Your task to perform on an android device: Set the phone to "Do not disturb". Image 0: 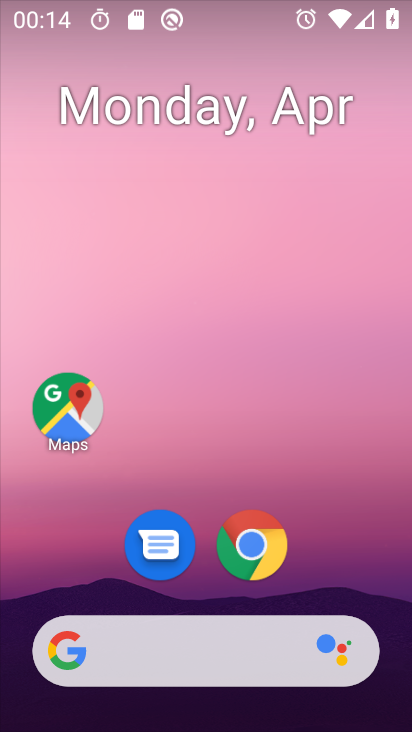
Step 0: click (345, 221)
Your task to perform on an android device: Set the phone to "Do not disturb". Image 1: 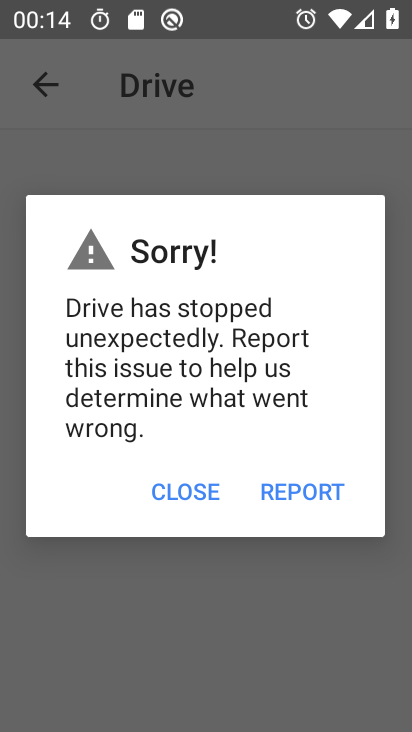
Step 1: press home button
Your task to perform on an android device: Set the phone to "Do not disturb". Image 2: 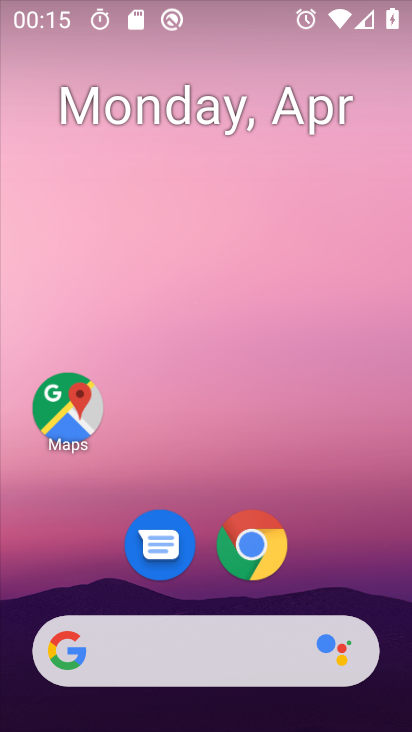
Step 2: drag from (303, 522) to (310, 183)
Your task to perform on an android device: Set the phone to "Do not disturb". Image 3: 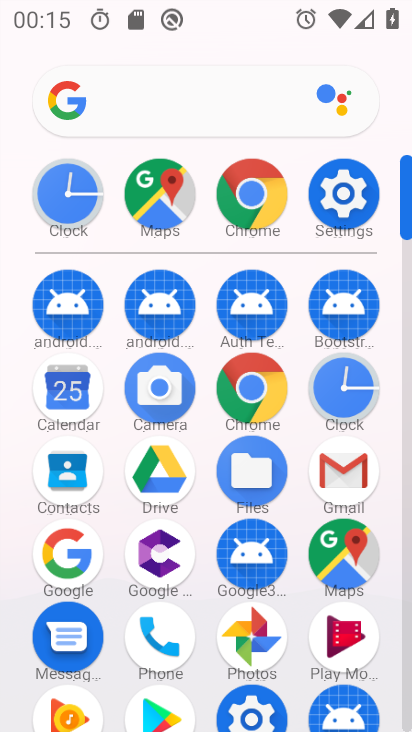
Step 3: drag from (175, 12) to (146, 698)
Your task to perform on an android device: Set the phone to "Do not disturb". Image 4: 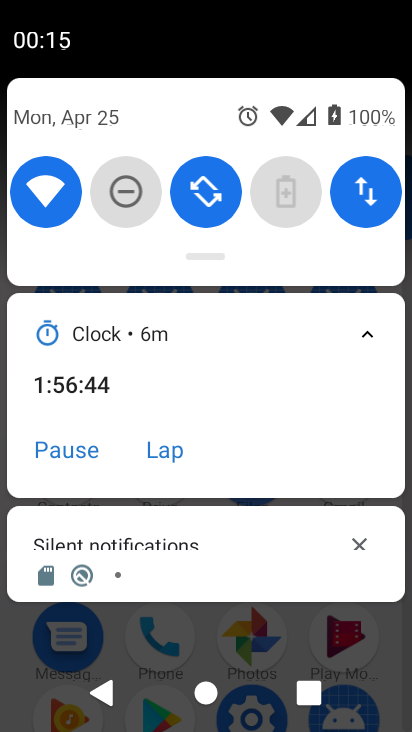
Step 4: click (140, 187)
Your task to perform on an android device: Set the phone to "Do not disturb". Image 5: 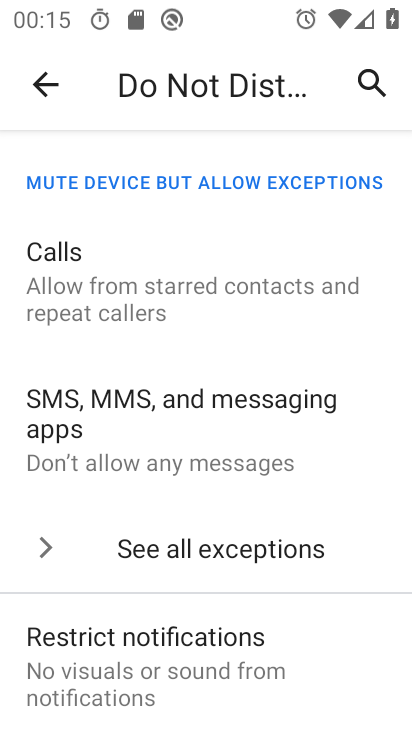
Step 5: drag from (232, 587) to (271, 78)
Your task to perform on an android device: Set the phone to "Do not disturb". Image 6: 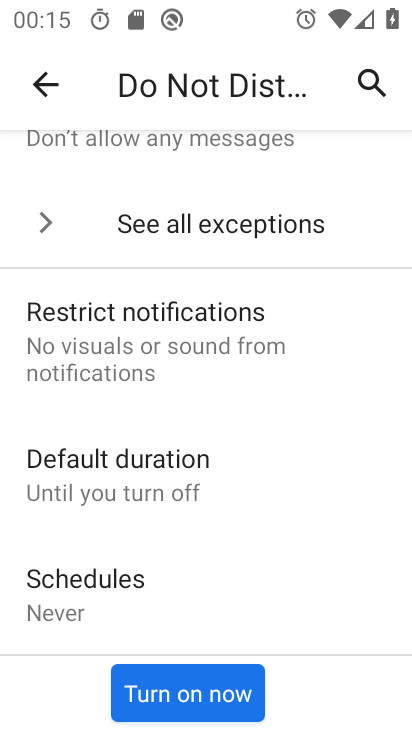
Step 6: click (177, 679)
Your task to perform on an android device: Set the phone to "Do not disturb". Image 7: 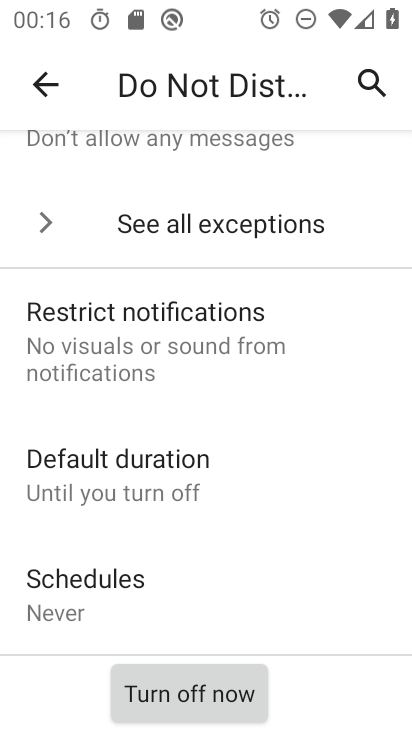
Step 7: task complete